Your task to perform on an android device: change timer sound Image 0: 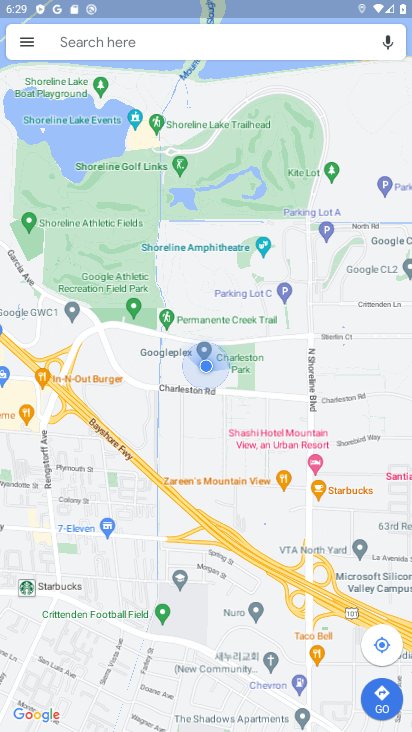
Step 0: press home button
Your task to perform on an android device: change timer sound Image 1: 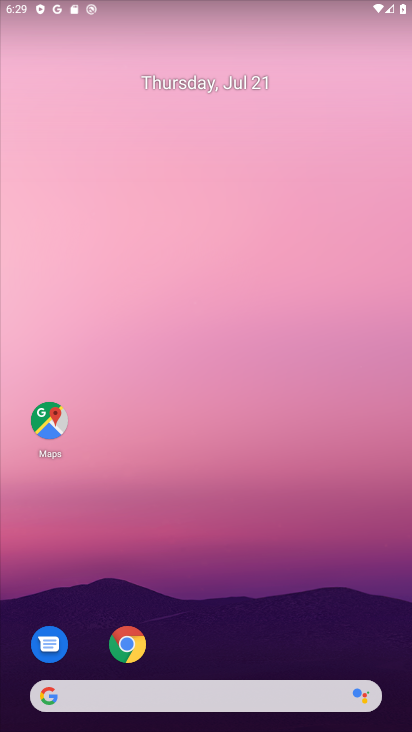
Step 1: drag from (239, 419) to (248, 231)
Your task to perform on an android device: change timer sound Image 2: 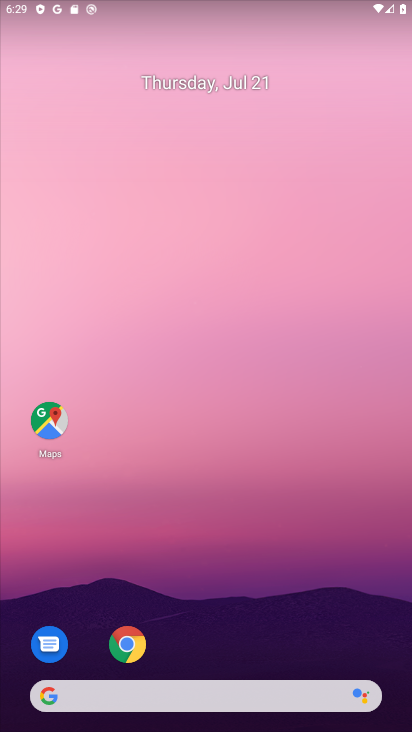
Step 2: drag from (202, 504) to (231, 178)
Your task to perform on an android device: change timer sound Image 3: 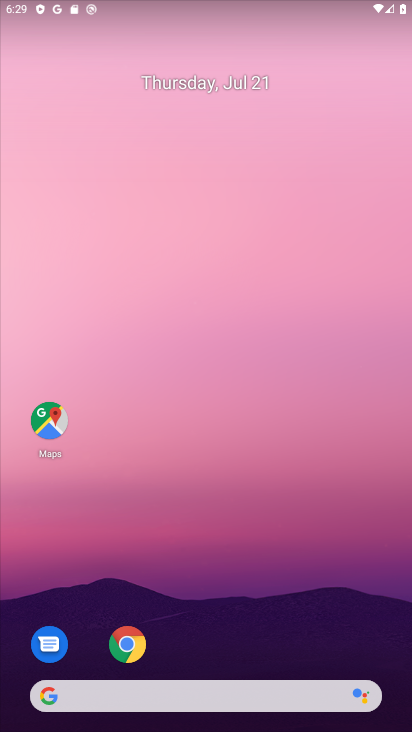
Step 3: drag from (206, 603) to (216, 40)
Your task to perform on an android device: change timer sound Image 4: 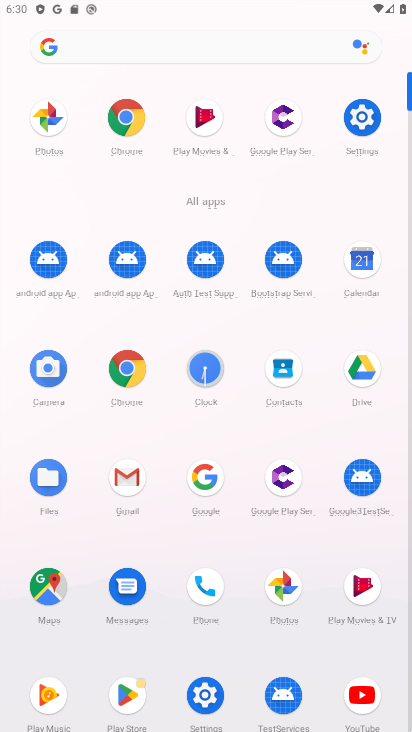
Step 4: click (367, 121)
Your task to perform on an android device: change timer sound Image 5: 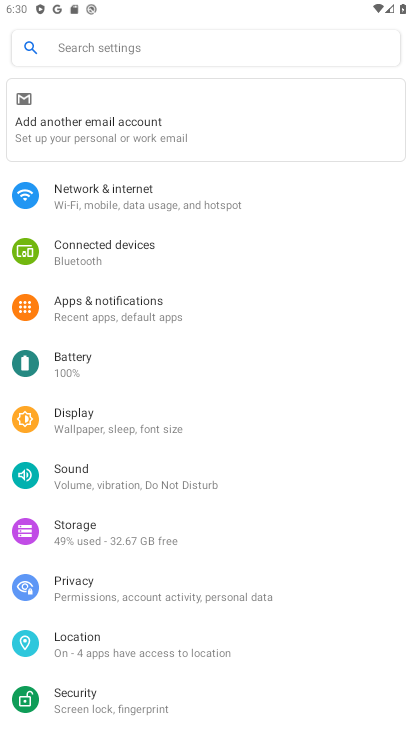
Step 5: click (70, 469)
Your task to perform on an android device: change timer sound Image 6: 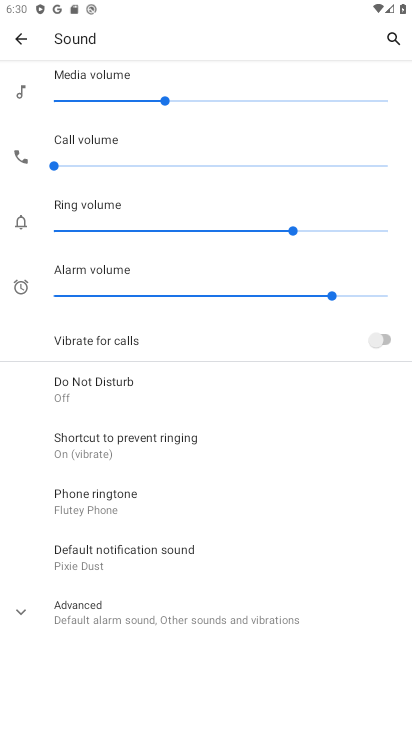
Step 6: task complete